Your task to perform on an android device: See recent photos Image 0: 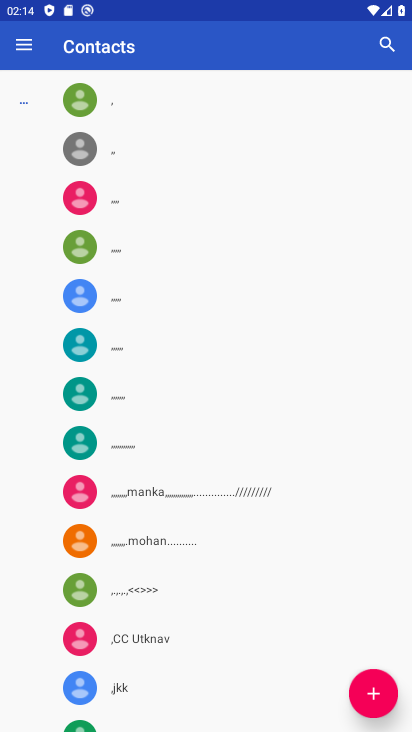
Step 0: press home button
Your task to perform on an android device: See recent photos Image 1: 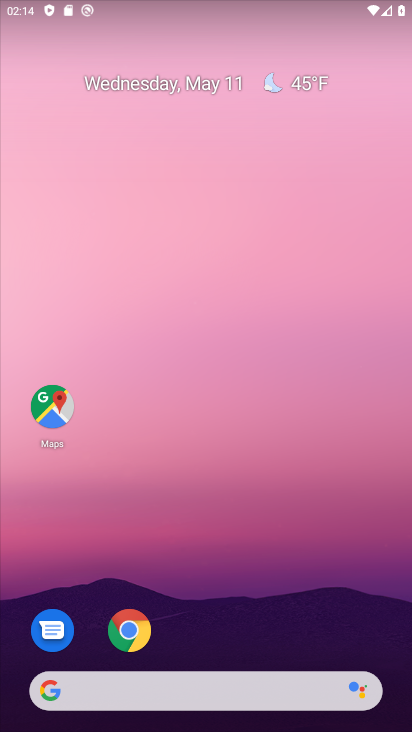
Step 1: drag from (207, 727) to (205, 139)
Your task to perform on an android device: See recent photos Image 2: 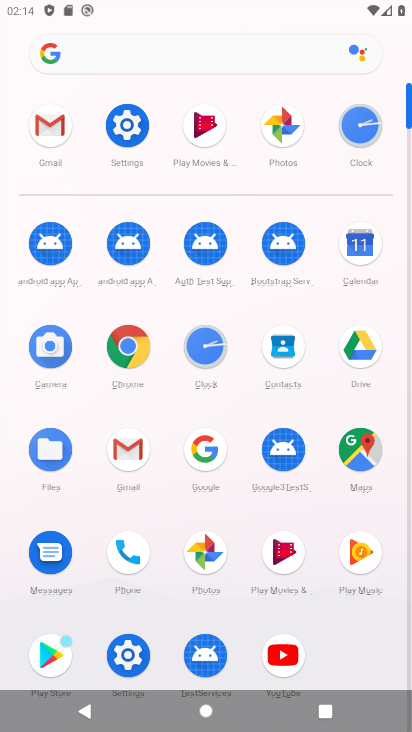
Step 2: click (206, 554)
Your task to perform on an android device: See recent photos Image 3: 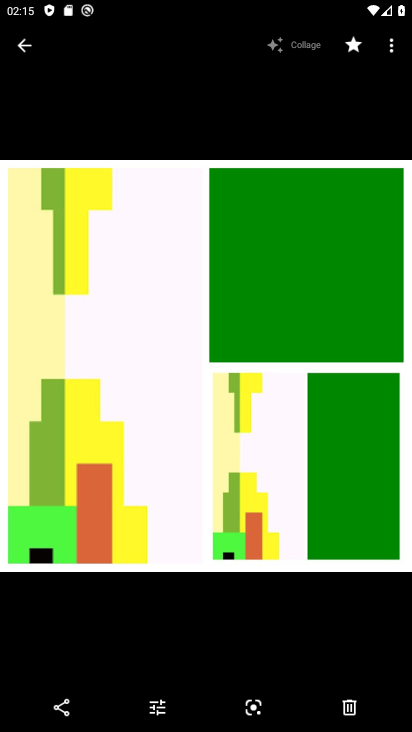
Step 3: click (31, 43)
Your task to perform on an android device: See recent photos Image 4: 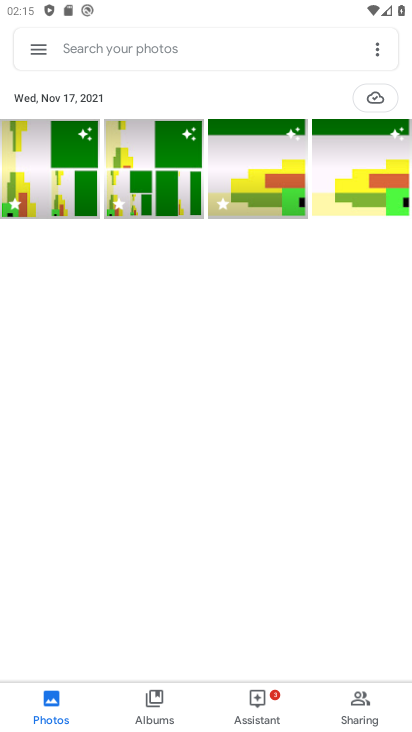
Step 4: task complete